Your task to perform on an android device: stop showing notifications on the lock screen Image 0: 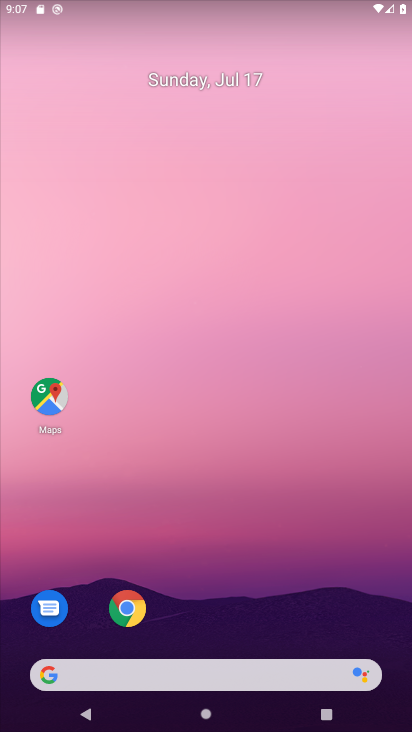
Step 0: drag from (236, 684) to (224, 212)
Your task to perform on an android device: stop showing notifications on the lock screen Image 1: 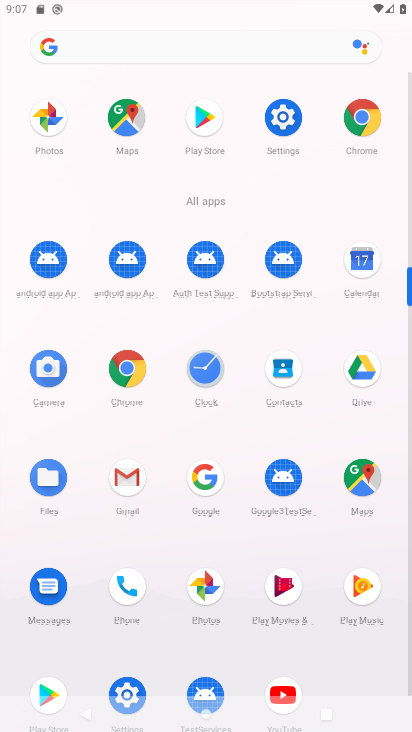
Step 1: click (282, 131)
Your task to perform on an android device: stop showing notifications on the lock screen Image 2: 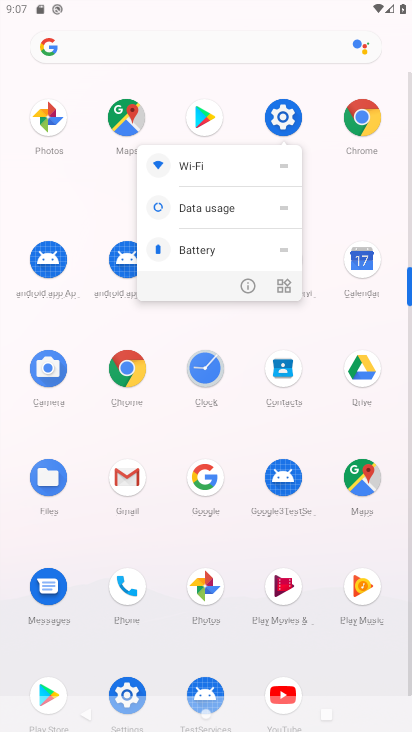
Step 2: click (282, 130)
Your task to perform on an android device: stop showing notifications on the lock screen Image 3: 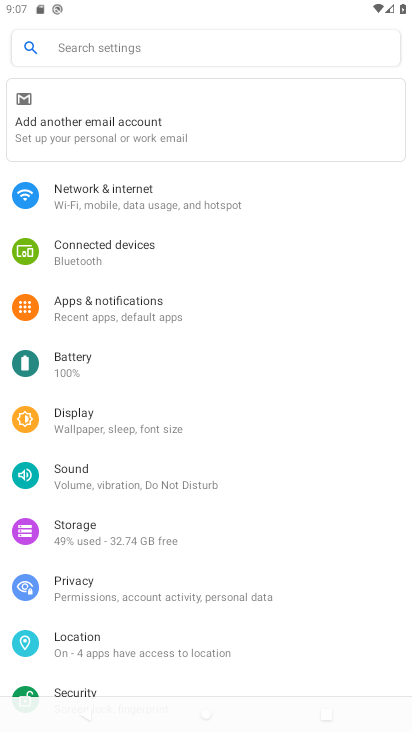
Step 3: click (124, 312)
Your task to perform on an android device: stop showing notifications on the lock screen Image 4: 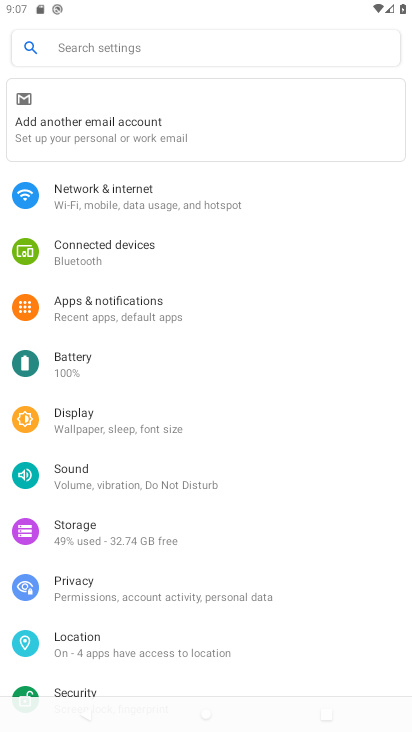
Step 4: click (123, 312)
Your task to perform on an android device: stop showing notifications on the lock screen Image 5: 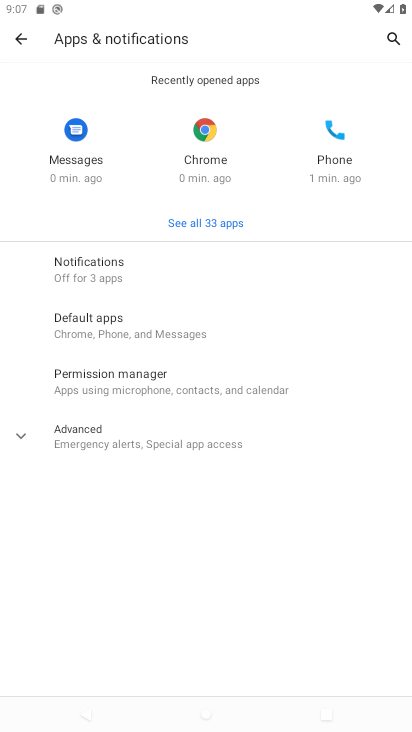
Step 5: click (92, 269)
Your task to perform on an android device: stop showing notifications on the lock screen Image 6: 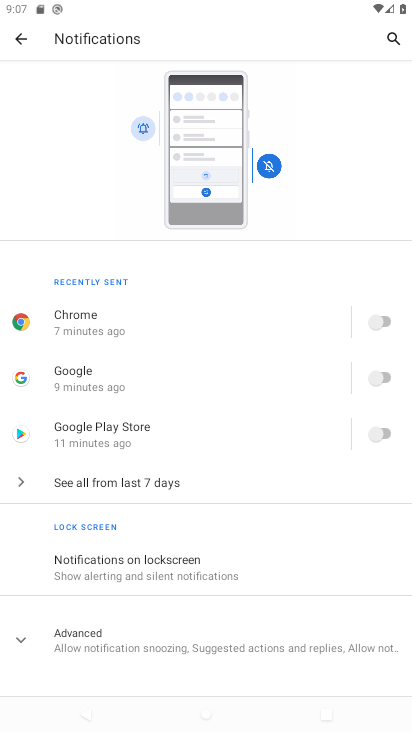
Step 6: click (167, 562)
Your task to perform on an android device: stop showing notifications on the lock screen Image 7: 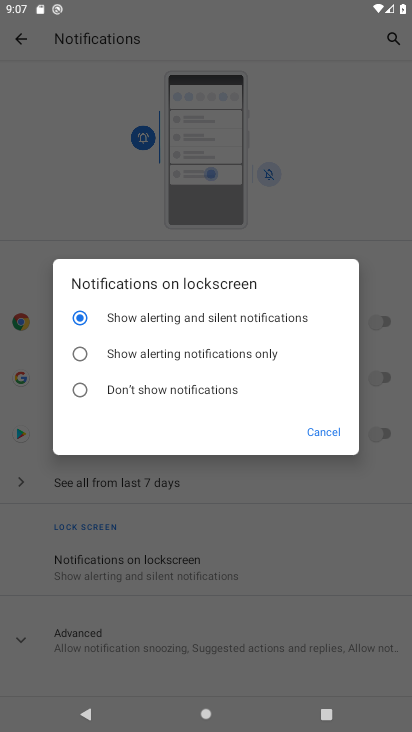
Step 7: click (316, 425)
Your task to perform on an android device: stop showing notifications on the lock screen Image 8: 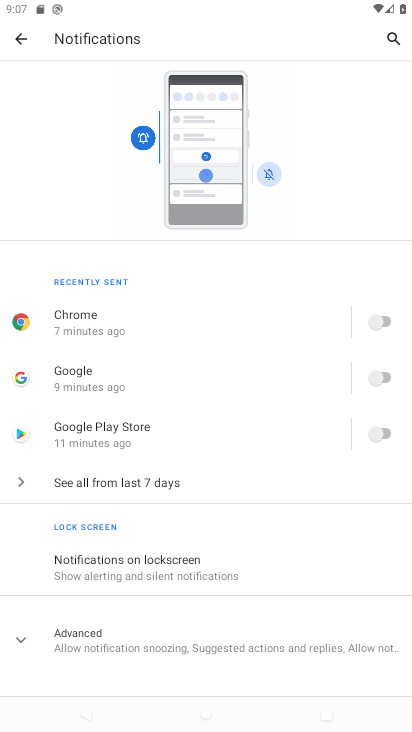
Step 8: task complete